Your task to perform on an android device: Open the Play Movies app and select the watchlist tab. Image 0: 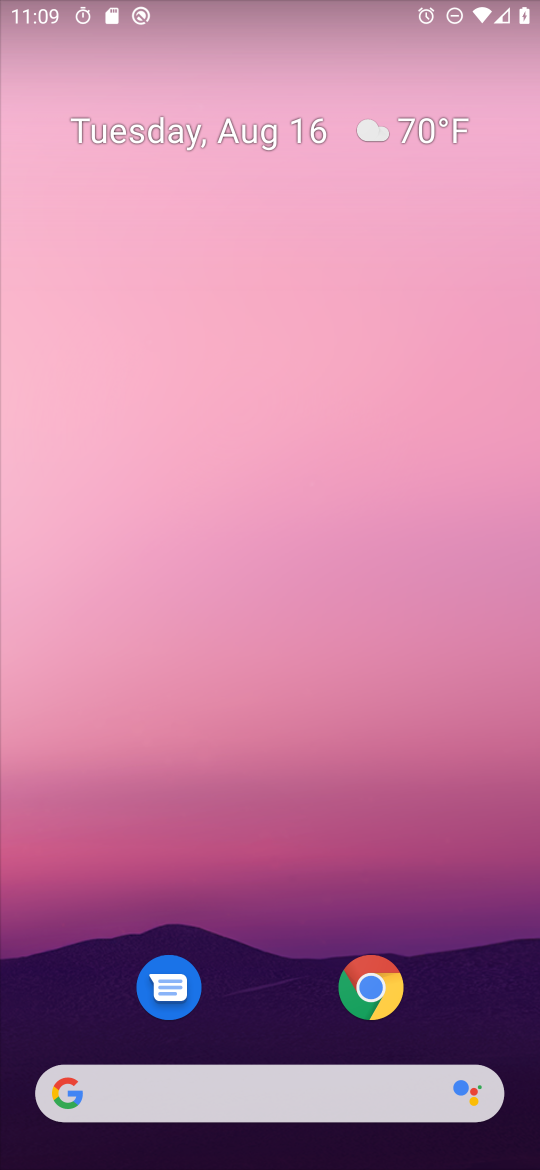
Step 0: drag from (23, 1131) to (511, 308)
Your task to perform on an android device: Open the Play Movies app and select the watchlist tab. Image 1: 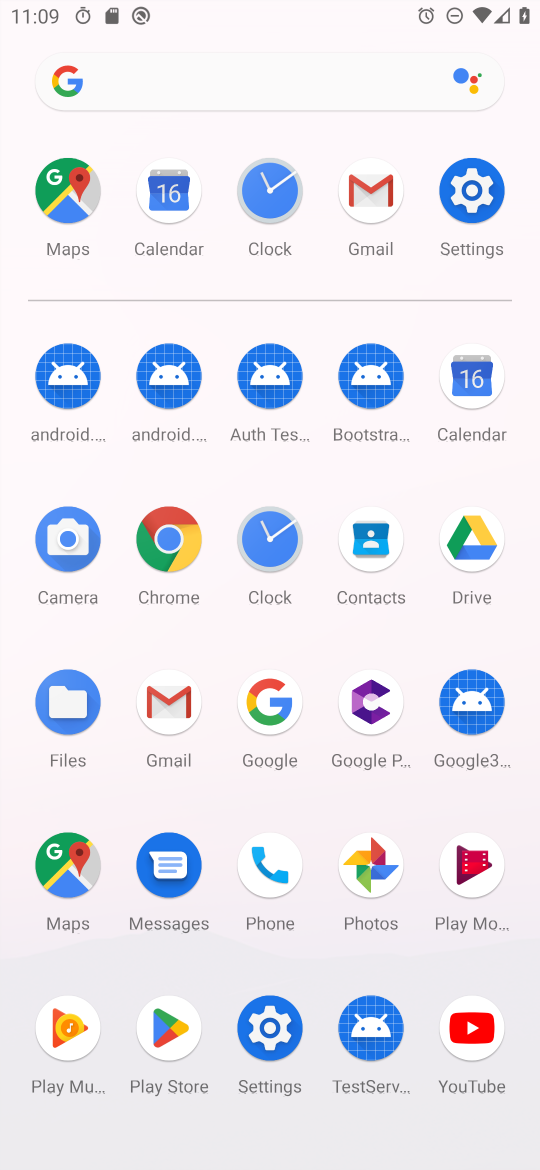
Step 1: click (474, 874)
Your task to perform on an android device: Open the Play Movies app and select the watchlist tab. Image 2: 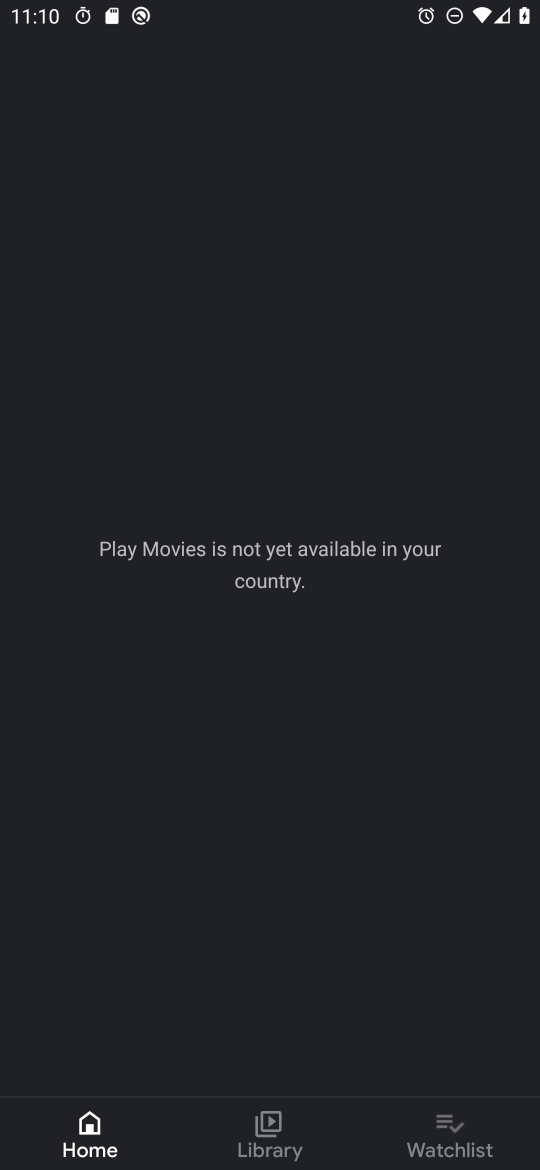
Step 2: click (425, 1128)
Your task to perform on an android device: Open the Play Movies app and select the watchlist tab. Image 3: 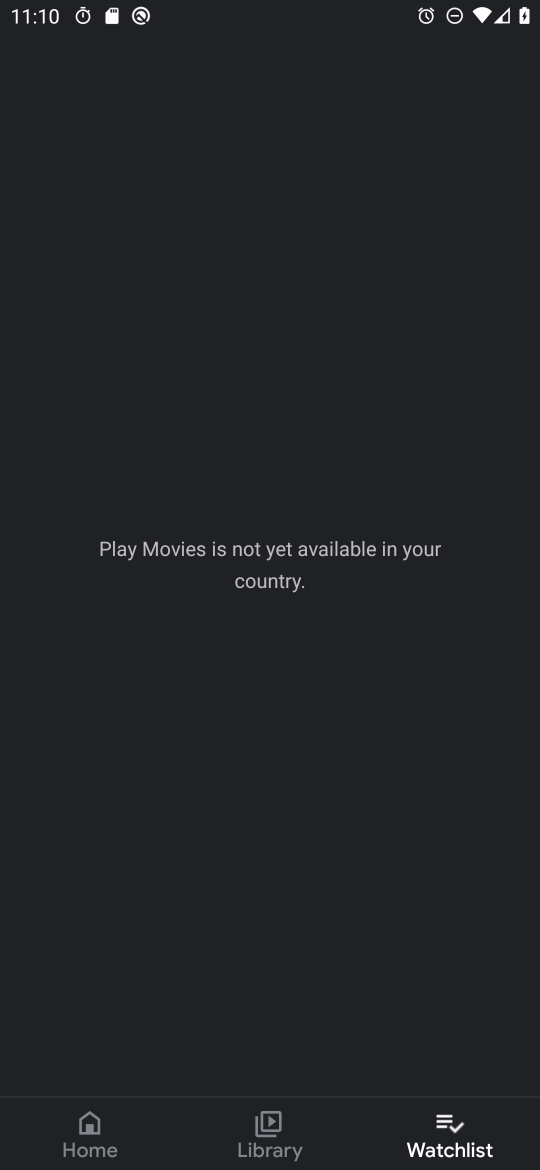
Step 3: task complete